Your task to perform on an android device: Go to Amazon Image 0: 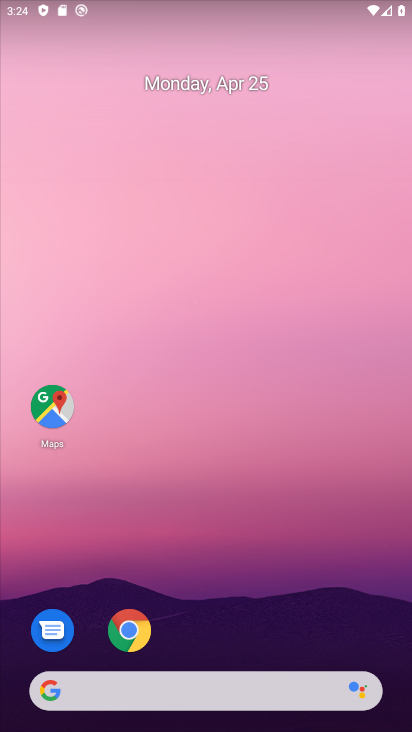
Step 0: click (139, 644)
Your task to perform on an android device: Go to Amazon Image 1: 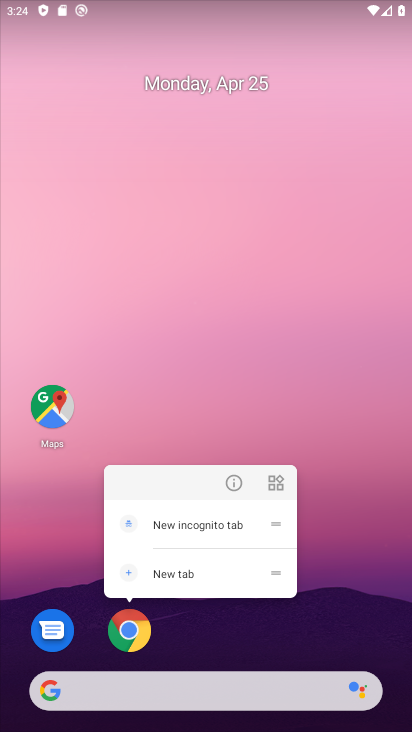
Step 1: click (133, 627)
Your task to perform on an android device: Go to Amazon Image 2: 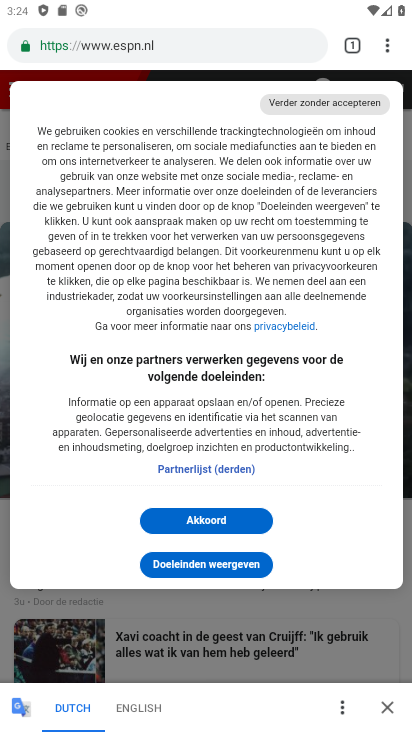
Step 2: press back button
Your task to perform on an android device: Go to Amazon Image 3: 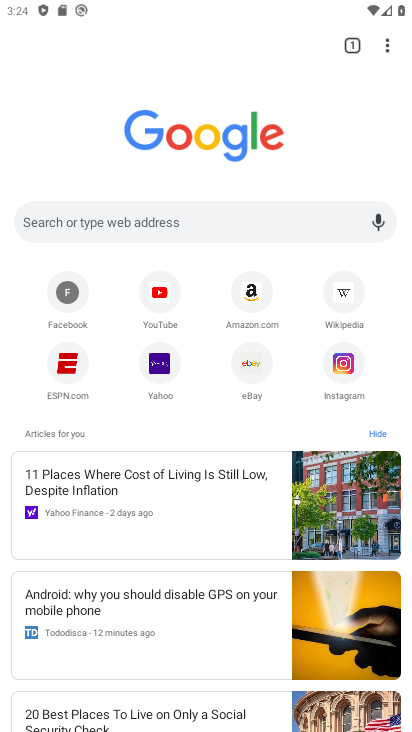
Step 3: click (253, 295)
Your task to perform on an android device: Go to Amazon Image 4: 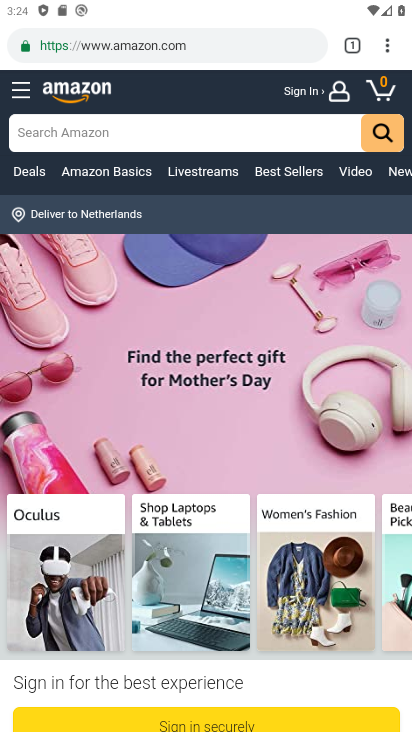
Step 4: task complete